Your task to perform on an android device: delete browsing data in the chrome app Image 0: 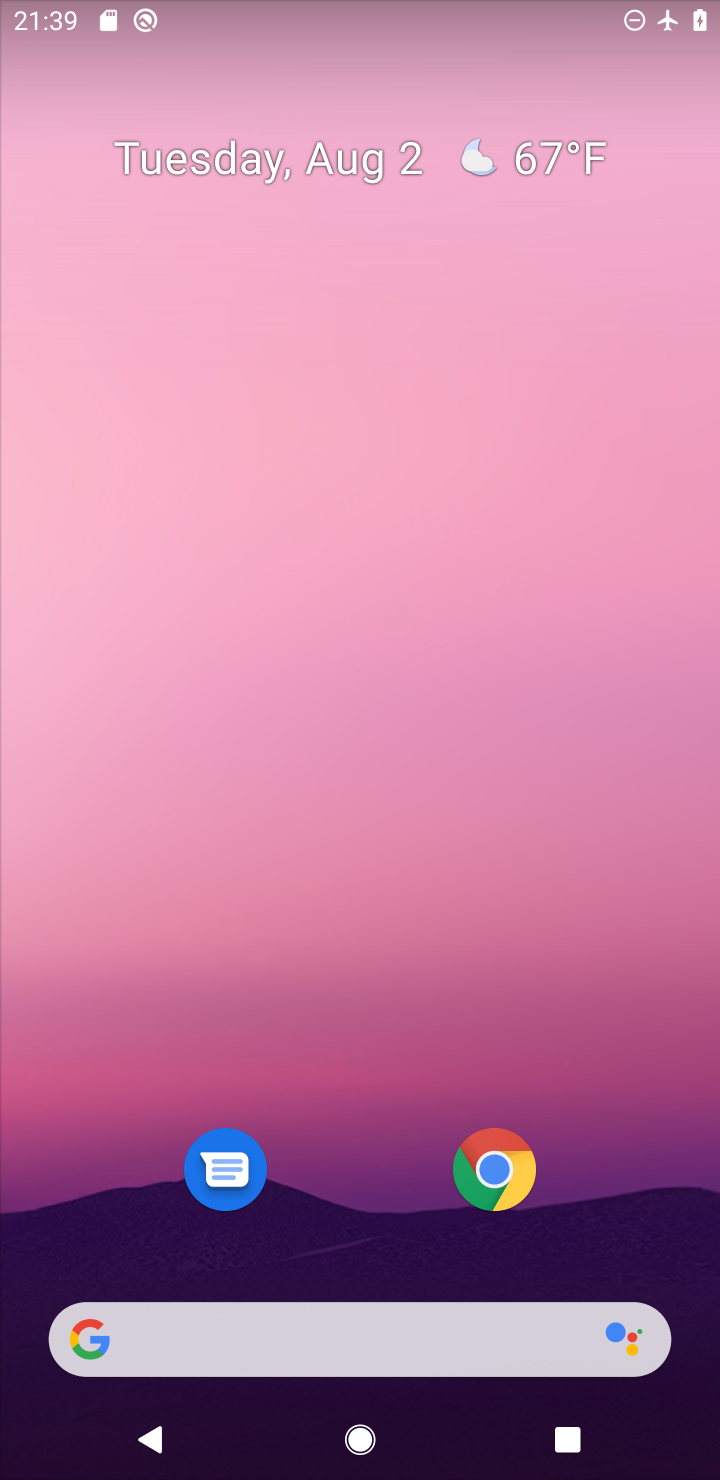
Step 0: click (494, 1172)
Your task to perform on an android device: delete browsing data in the chrome app Image 1: 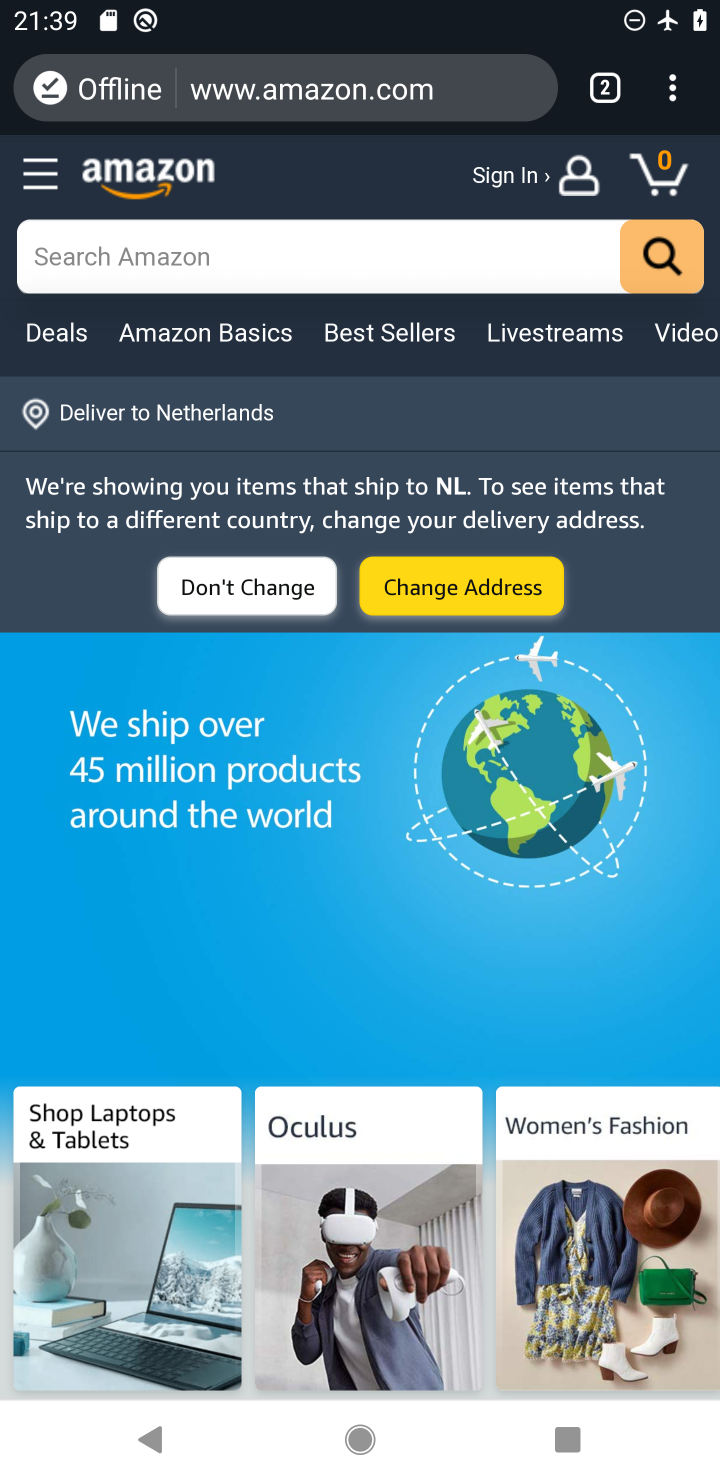
Step 1: click (676, 105)
Your task to perform on an android device: delete browsing data in the chrome app Image 2: 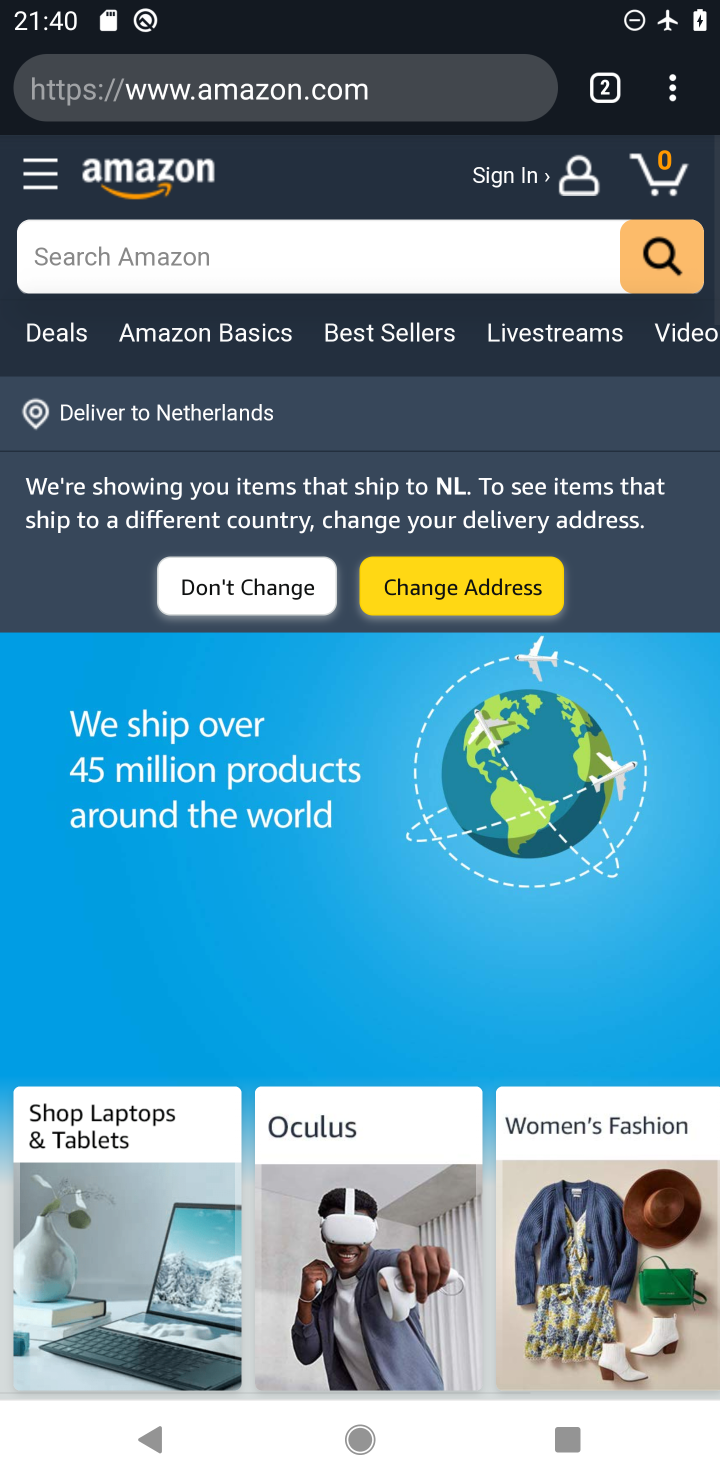
Step 2: drag from (678, 106) to (411, 493)
Your task to perform on an android device: delete browsing data in the chrome app Image 3: 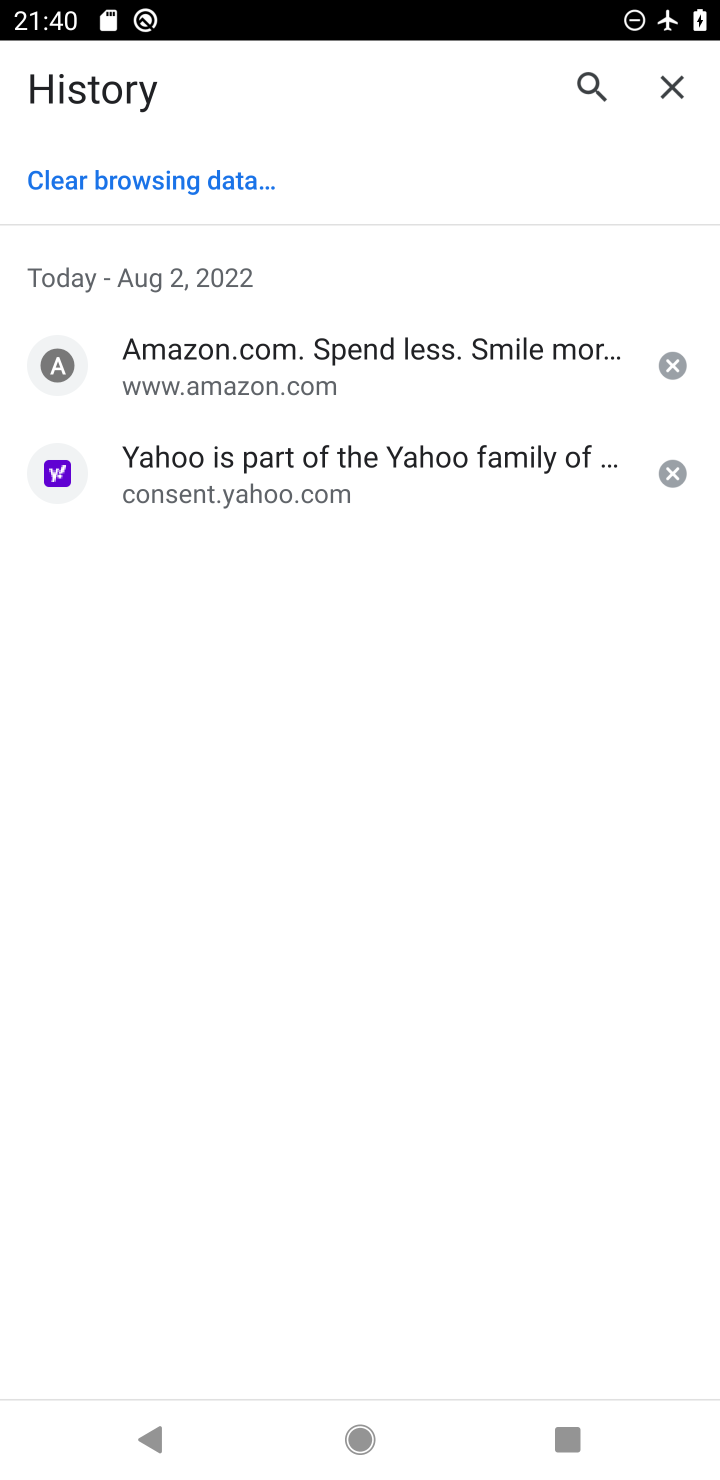
Step 3: click (189, 183)
Your task to perform on an android device: delete browsing data in the chrome app Image 4: 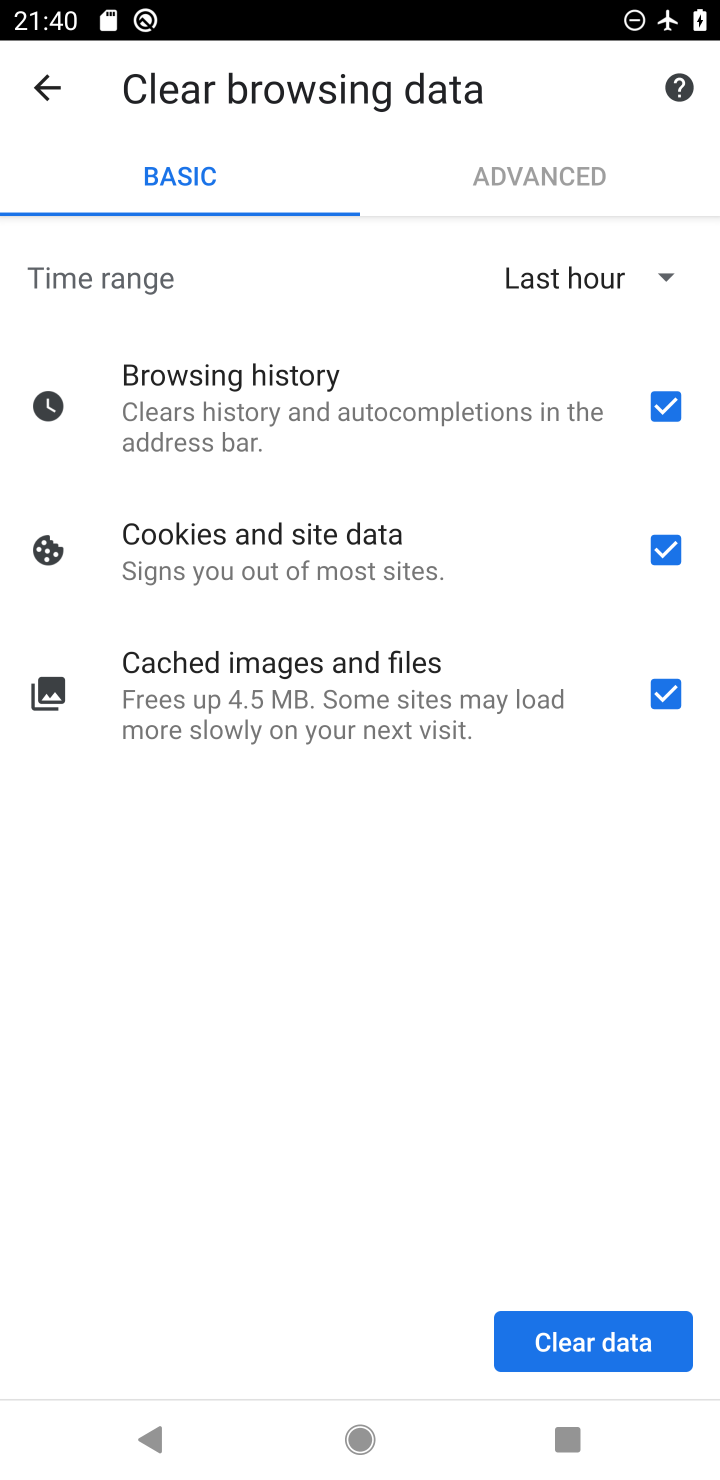
Step 4: click (658, 689)
Your task to perform on an android device: delete browsing data in the chrome app Image 5: 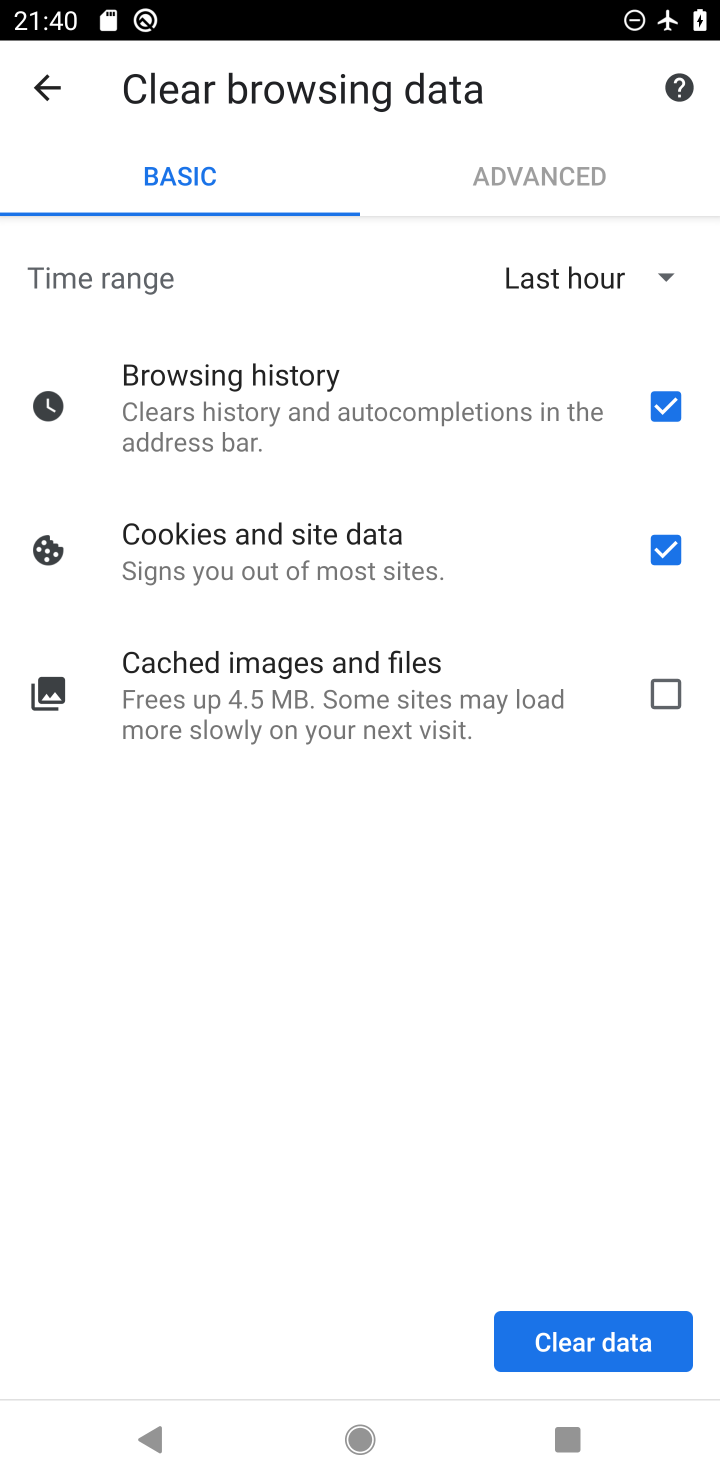
Step 5: click (658, 536)
Your task to perform on an android device: delete browsing data in the chrome app Image 6: 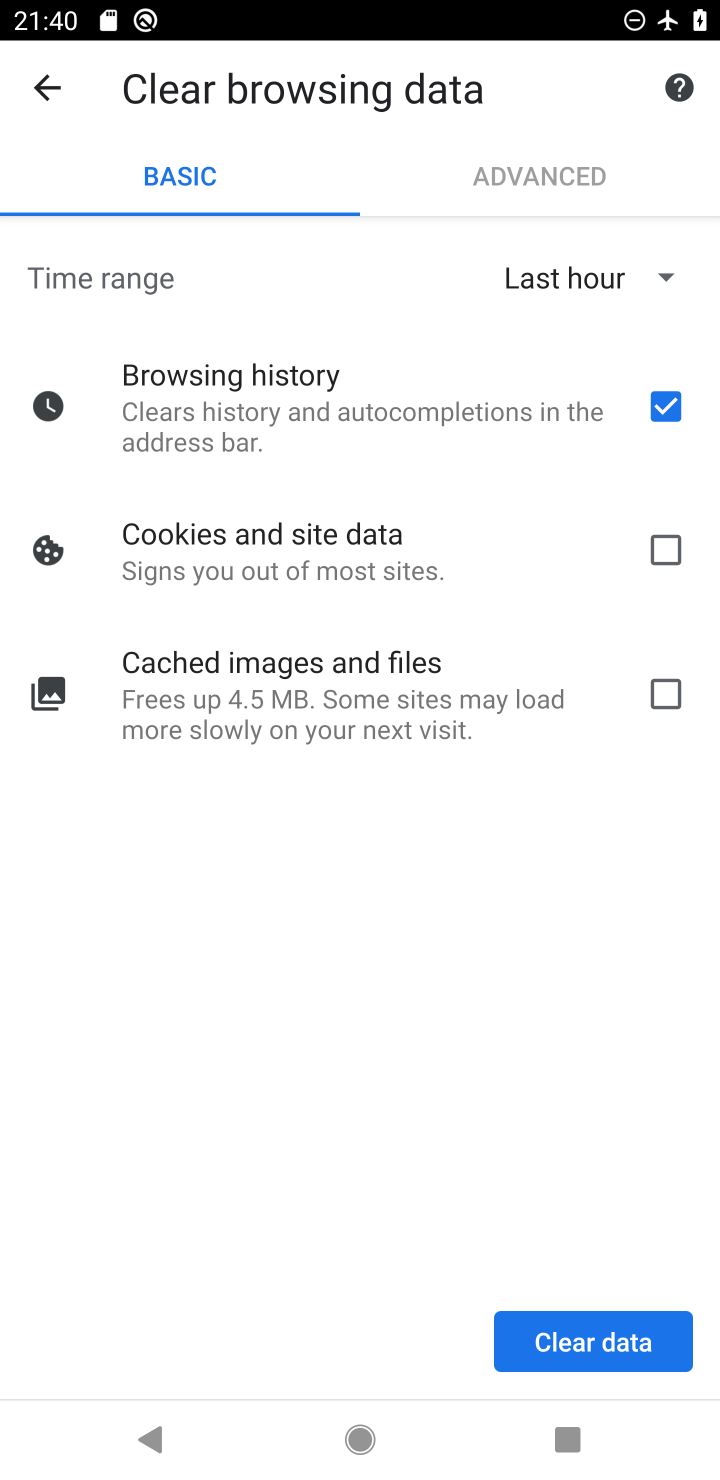
Step 6: click (594, 1350)
Your task to perform on an android device: delete browsing data in the chrome app Image 7: 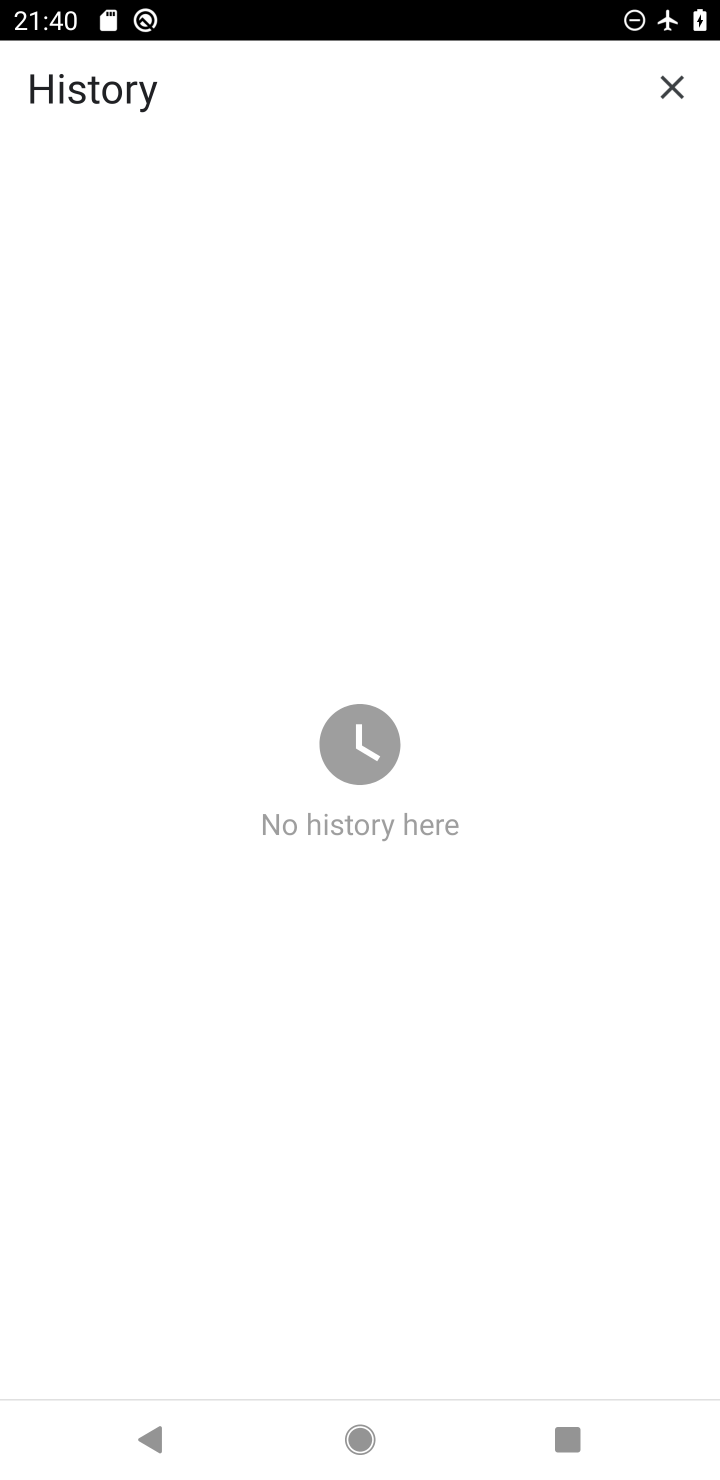
Step 7: task complete